Your task to perform on an android device: Open the Play Movies app and select the watchlist tab. Image 0: 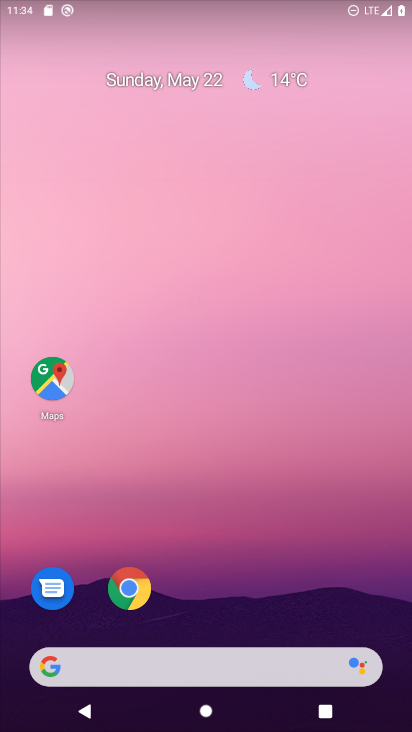
Step 0: drag from (233, 615) to (259, 297)
Your task to perform on an android device: Open the Play Movies app and select the watchlist tab. Image 1: 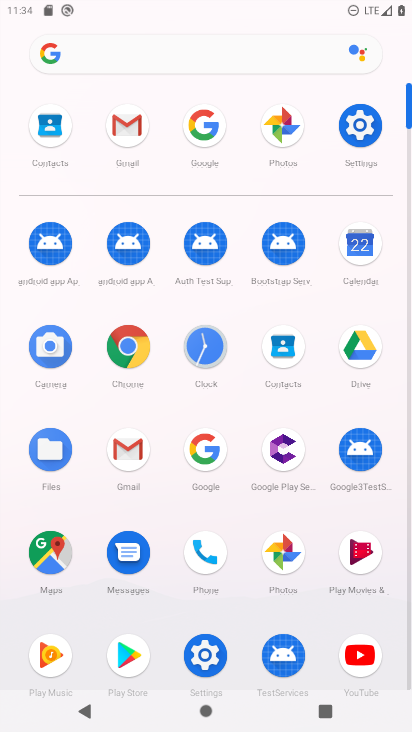
Step 1: click (366, 551)
Your task to perform on an android device: Open the Play Movies app and select the watchlist tab. Image 2: 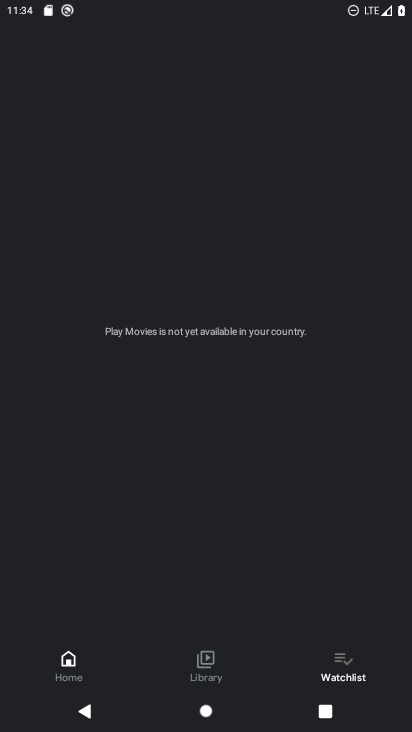
Step 2: click (344, 654)
Your task to perform on an android device: Open the Play Movies app and select the watchlist tab. Image 3: 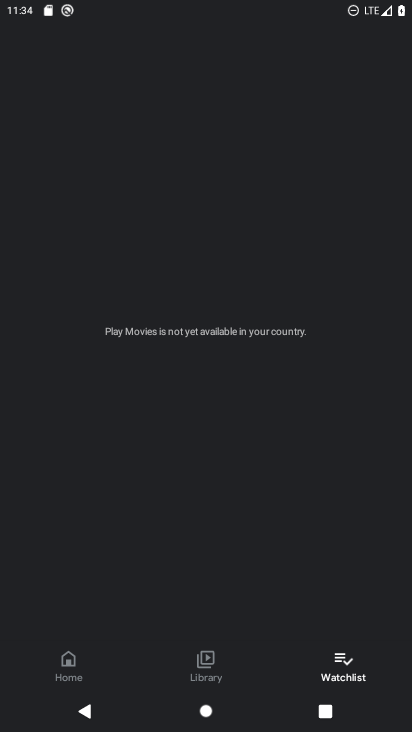
Step 3: task complete